Your task to perform on an android device: Search for seafood restaurants on Google Maps Image 0: 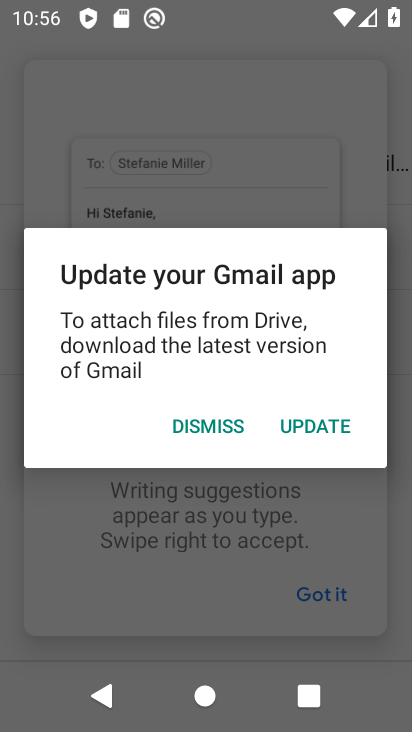
Step 0: press home button
Your task to perform on an android device: Search for seafood restaurants on Google Maps Image 1: 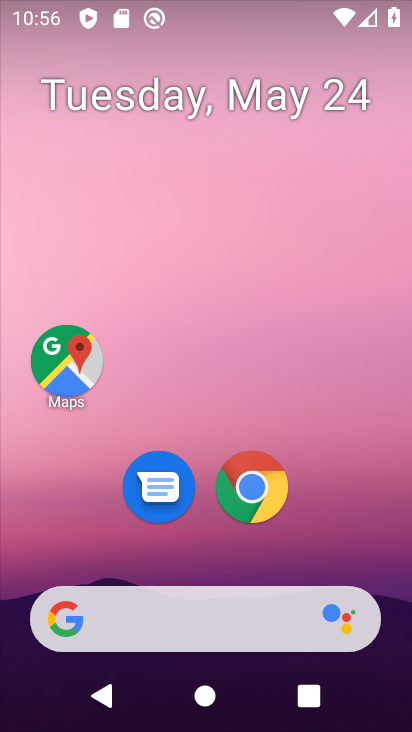
Step 1: click (64, 355)
Your task to perform on an android device: Search for seafood restaurants on Google Maps Image 2: 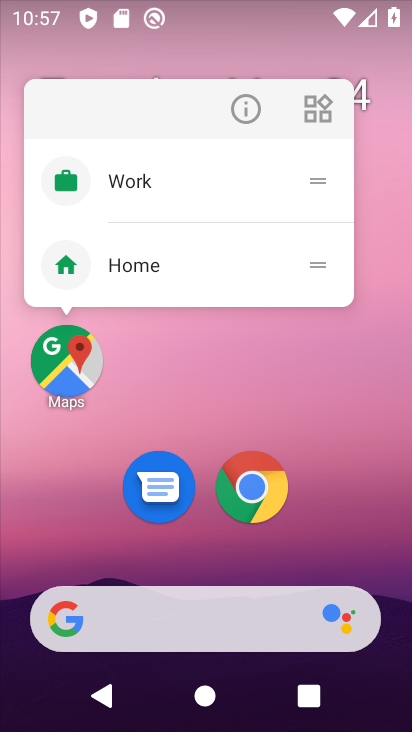
Step 2: click (62, 363)
Your task to perform on an android device: Search for seafood restaurants on Google Maps Image 3: 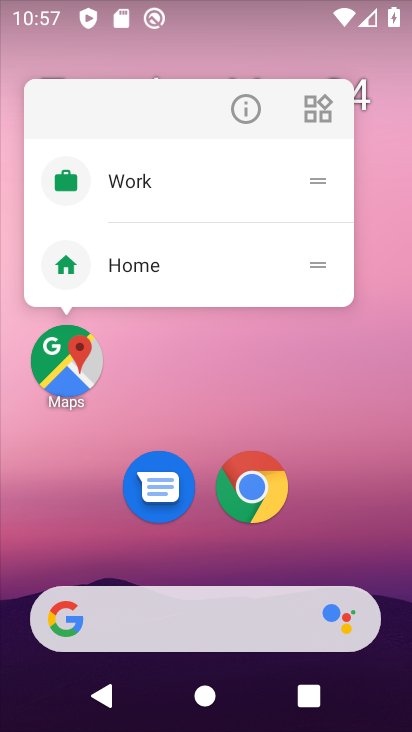
Step 3: click (62, 363)
Your task to perform on an android device: Search for seafood restaurants on Google Maps Image 4: 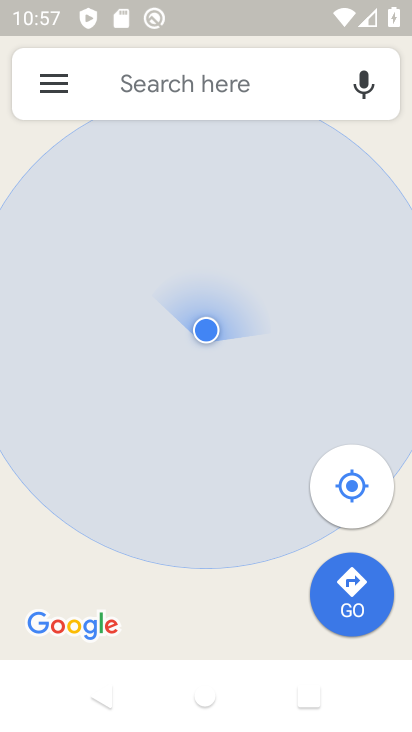
Step 4: click (156, 90)
Your task to perform on an android device: Search for seafood restaurants on Google Maps Image 5: 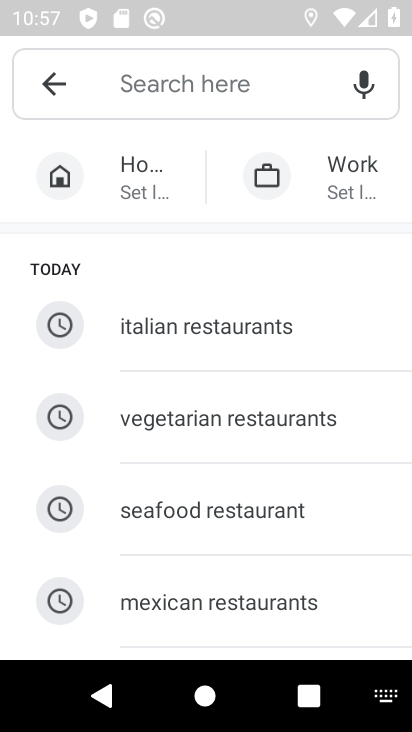
Step 5: click (173, 504)
Your task to perform on an android device: Search for seafood restaurants on Google Maps Image 6: 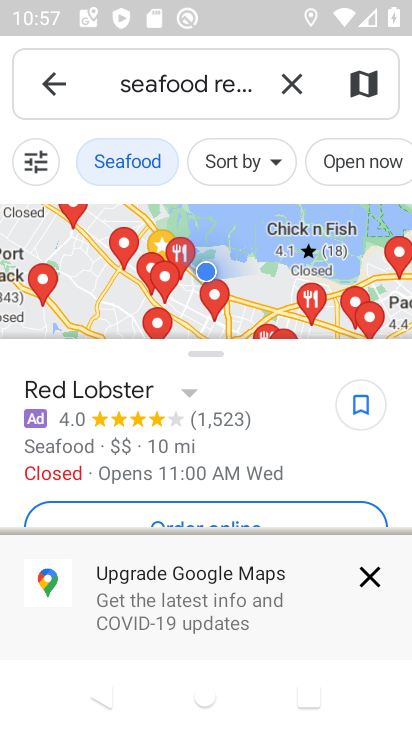
Step 6: task complete